Your task to perform on an android device: turn pop-ups off in chrome Image 0: 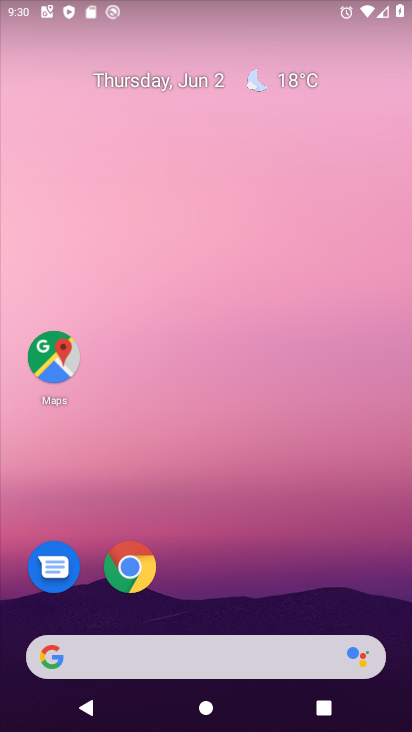
Step 0: press home button
Your task to perform on an android device: turn pop-ups off in chrome Image 1: 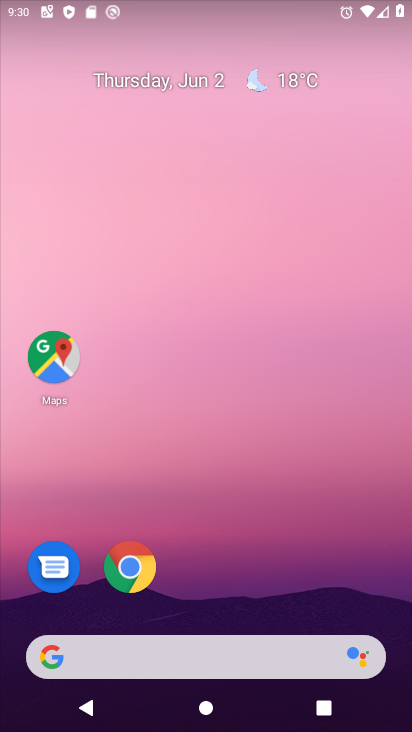
Step 1: drag from (226, 618) to (281, 16)
Your task to perform on an android device: turn pop-ups off in chrome Image 2: 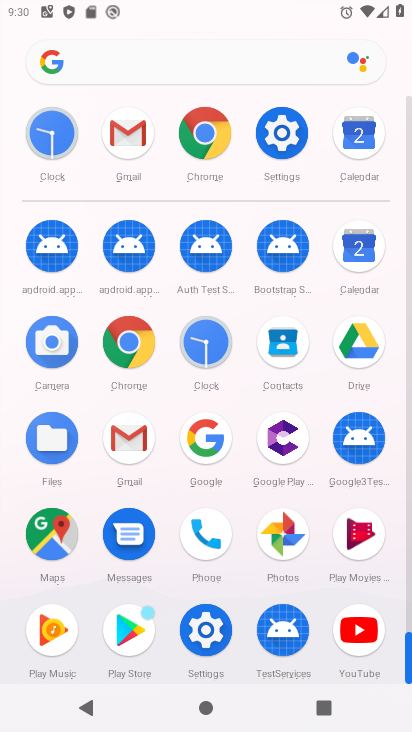
Step 2: click (200, 124)
Your task to perform on an android device: turn pop-ups off in chrome Image 3: 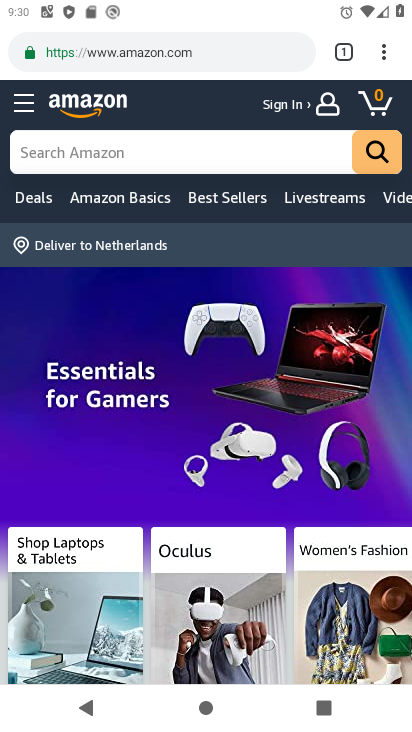
Step 3: click (375, 53)
Your task to perform on an android device: turn pop-ups off in chrome Image 4: 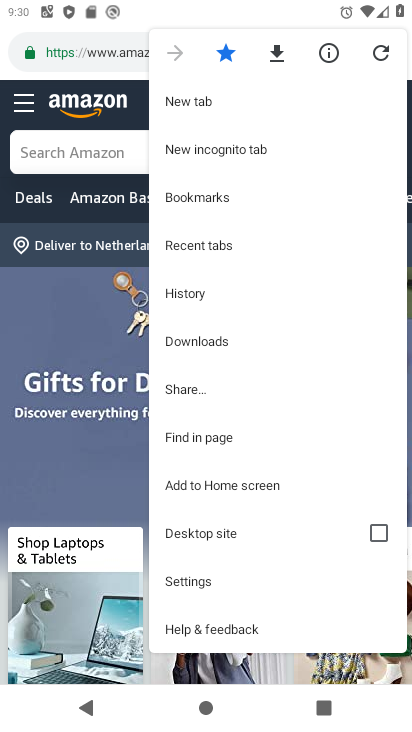
Step 4: click (236, 576)
Your task to perform on an android device: turn pop-ups off in chrome Image 5: 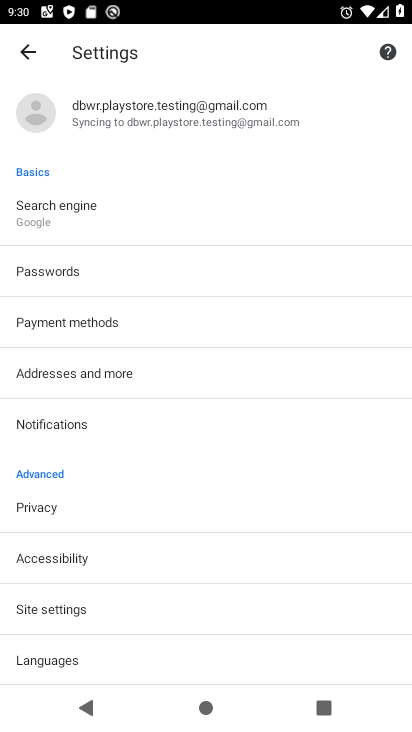
Step 5: click (148, 604)
Your task to perform on an android device: turn pop-ups off in chrome Image 6: 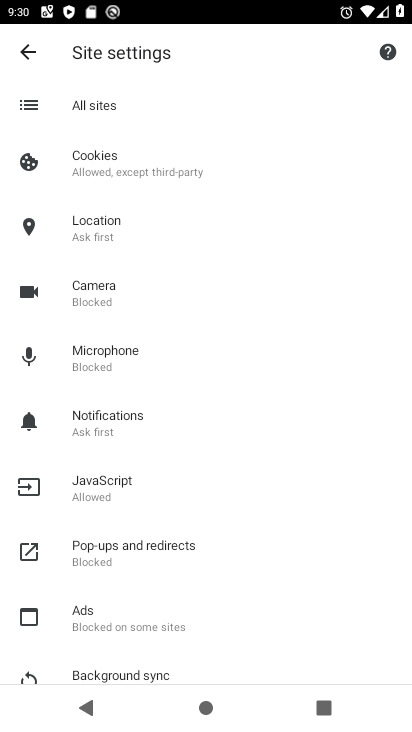
Step 6: click (135, 547)
Your task to perform on an android device: turn pop-ups off in chrome Image 7: 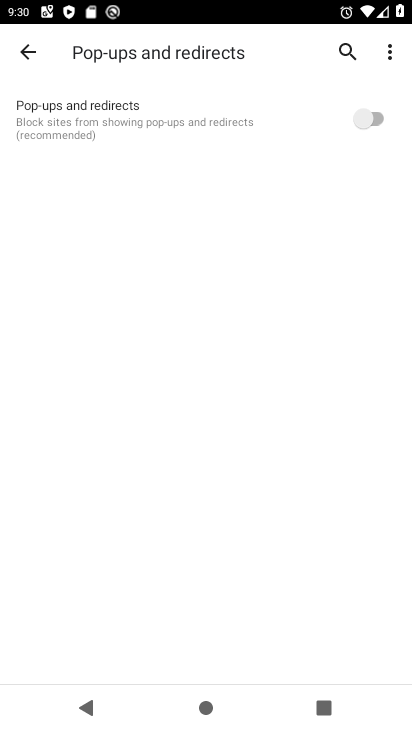
Step 7: task complete